Your task to perform on an android device: Open Maps and search for coffee Image 0: 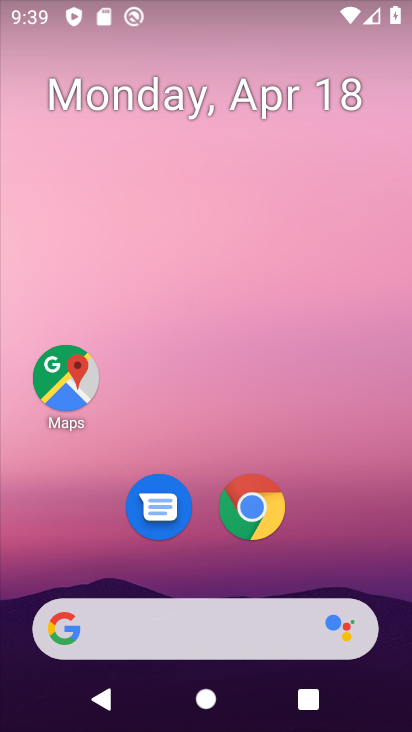
Step 0: drag from (157, 581) to (248, 135)
Your task to perform on an android device: Open Maps and search for coffee Image 1: 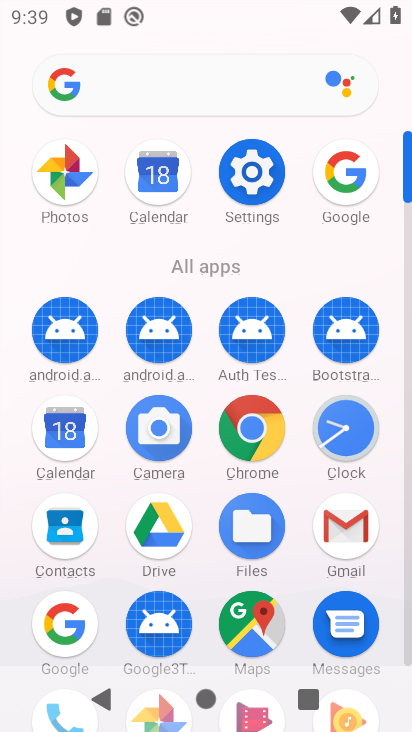
Step 1: click (260, 620)
Your task to perform on an android device: Open Maps and search for coffee Image 2: 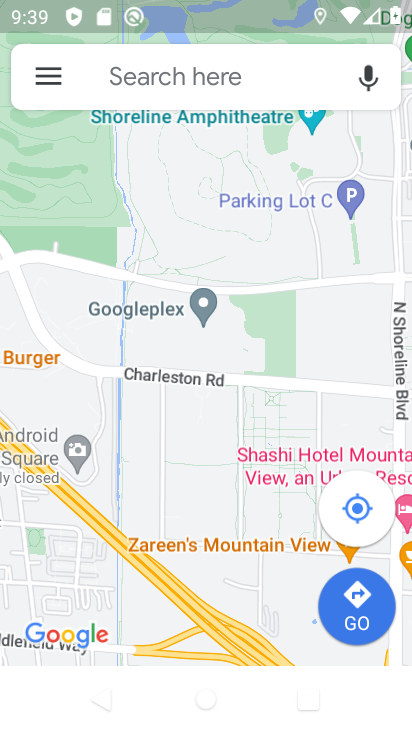
Step 2: click (166, 80)
Your task to perform on an android device: Open Maps and search for coffee Image 3: 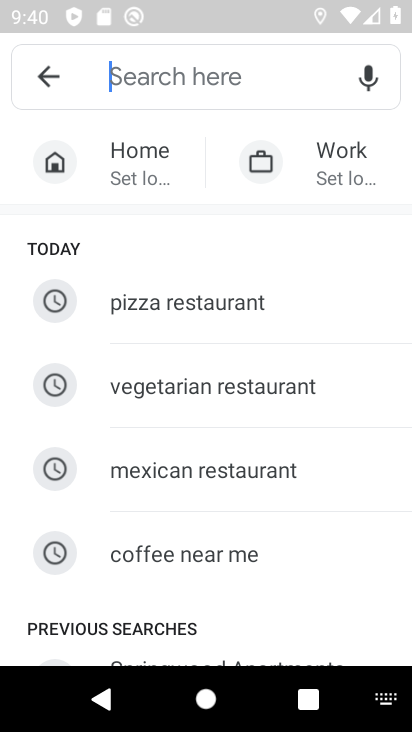
Step 3: type "coffee "
Your task to perform on an android device: Open Maps and search for coffee Image 4: 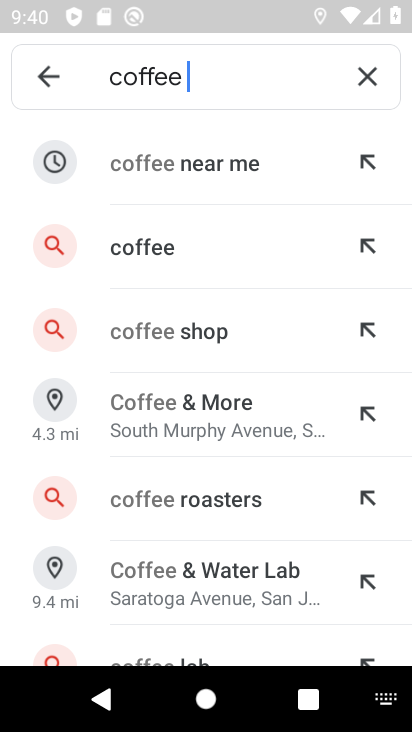
Step 4: click (175, 251)
Your task to perform on an android device: Open Maps and search for coffee Image 5: 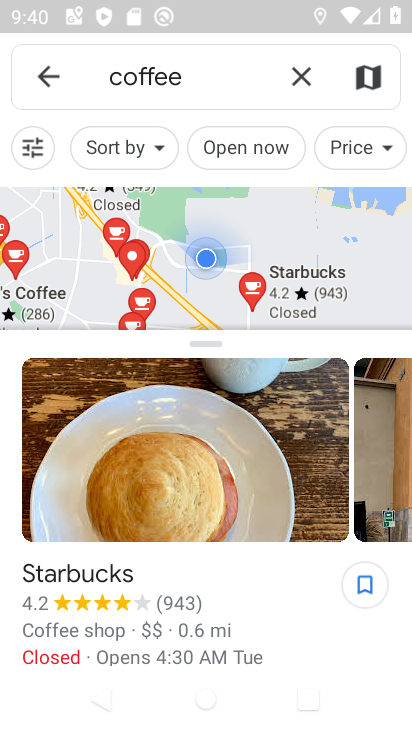
Step 5: task complete